Your task to perform on an android device: Open the phone app and click the voicemail tab. Image 0: 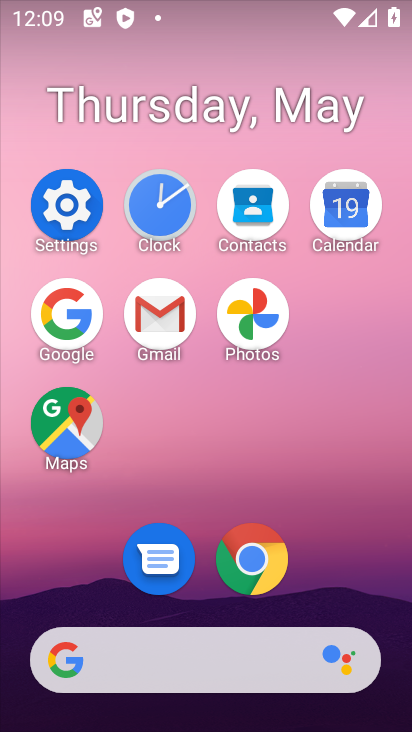
Step 0: drag from (367, 550) to (337, 197)
Your task to perform on an android device: Open the phone app and click the voicemail tab. Image 1: 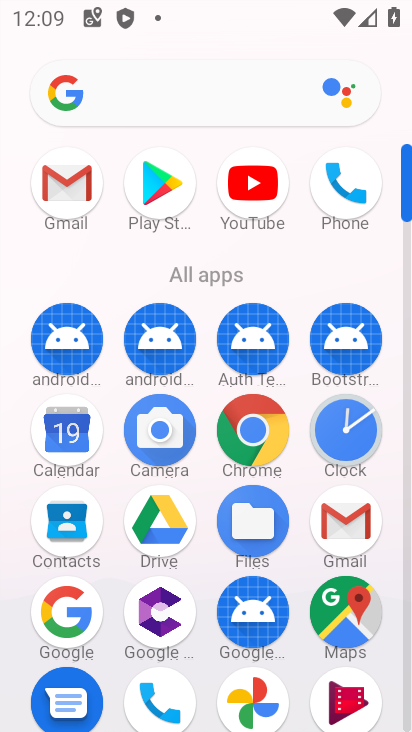
Step 1: click (326, 191)
Your task to perform on an android device: Open the phone app and click the voicemail tab. Image 2: 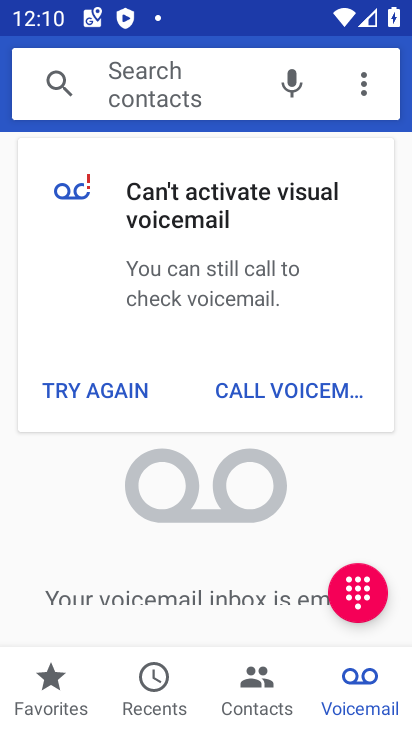
Step 2: click (361, 692)
Your task to perform on an android device: Open the phone app and click the voicemail tab. Image 3: 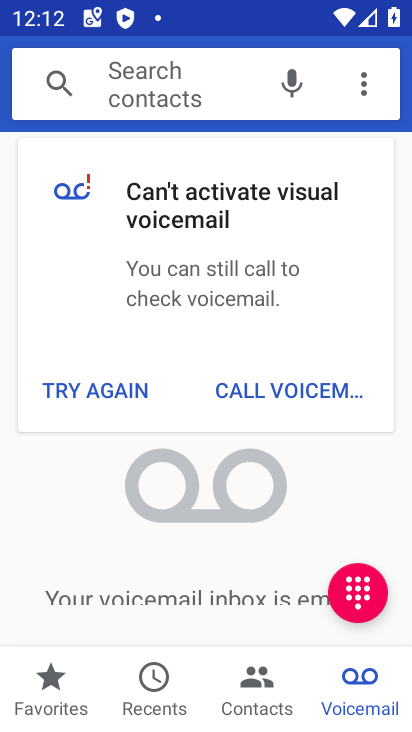
Step 3: task complete